Your task to perform on an android device: refresh tabs in the chrome app Image 0: 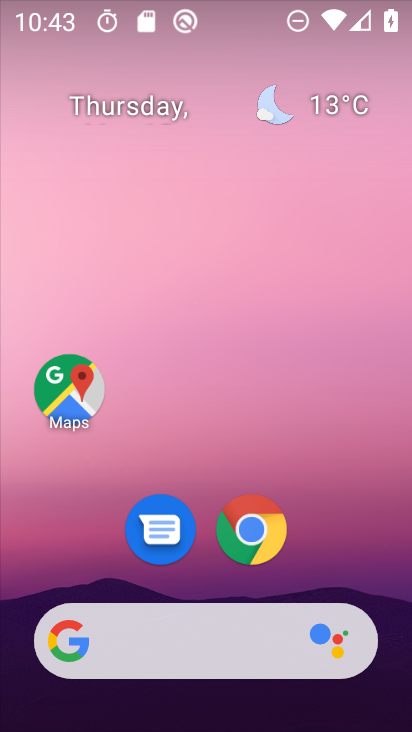
Step 0: click (253, 547)
Your task to perform on an android device: refresh tabs in the chrome app Image 1: 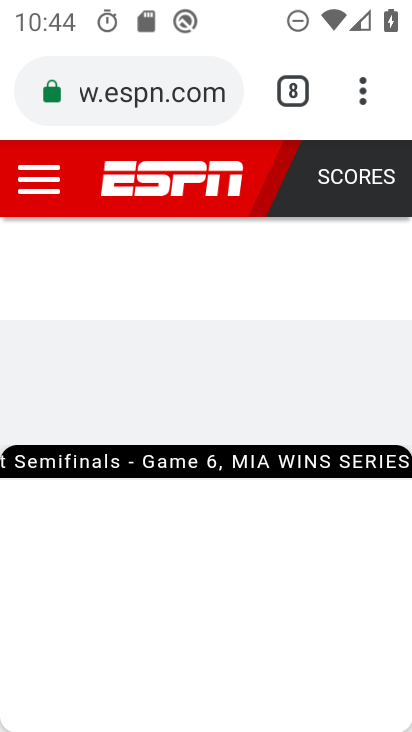
Step 1: click (359, 83)
Your task to perform on an android device: refresh tabs in the chrome app Image 2: 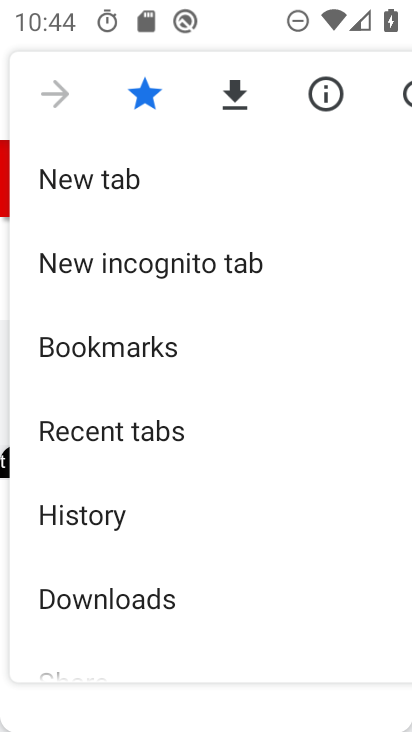
Step 2: drag from (255, 556) to (255, 231)
Your task to perform on an android device: refresh tabs in the chrome app Image 3: 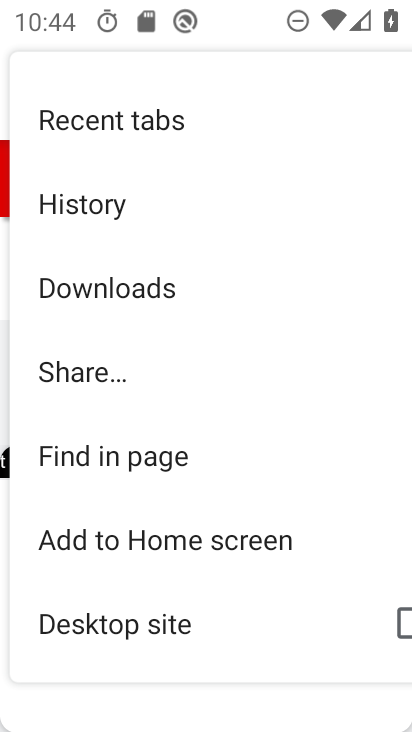
Step 3: drag from (255, 594) to (347, 190)
Your task to perform on an android device: refresh tabs in the chrome app Image 4: 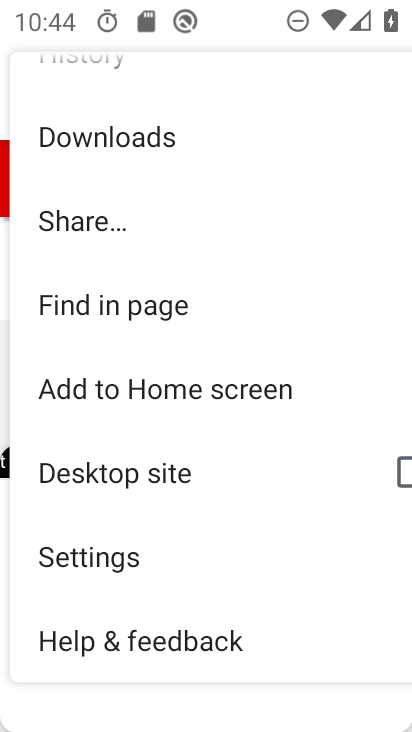
Step 4: drag from (355, 158) to (288, 574)
Your task to perform on an android device: refresh tabs in the chrome app Image 5: 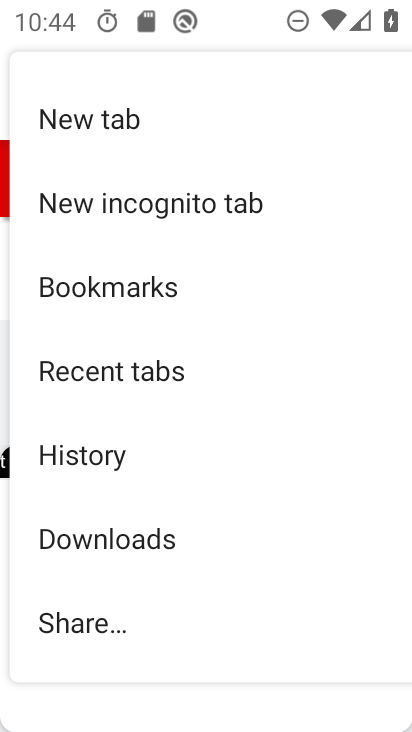
Step 5: drag from (377, 299) to (291, 654)
Your task to perform on an android device: refresh tabs in the chrome app Image 6: 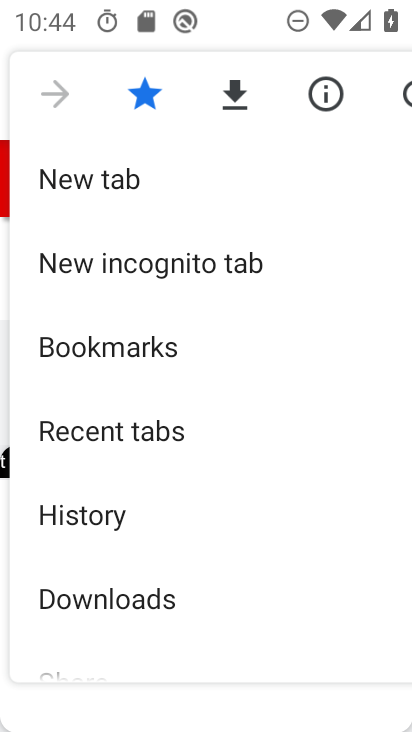
Step 6: drag from (380, 116) to (162, 86)
Your task to perform on an android device: refresh tabs in the chrome app Image 7: 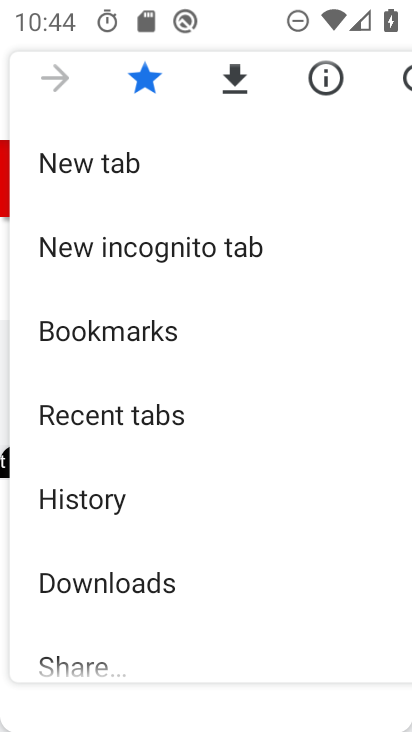
Step 7: click (400, 76)
Your task to perform on an android device: refresh tabs in the chrome app Image 8: 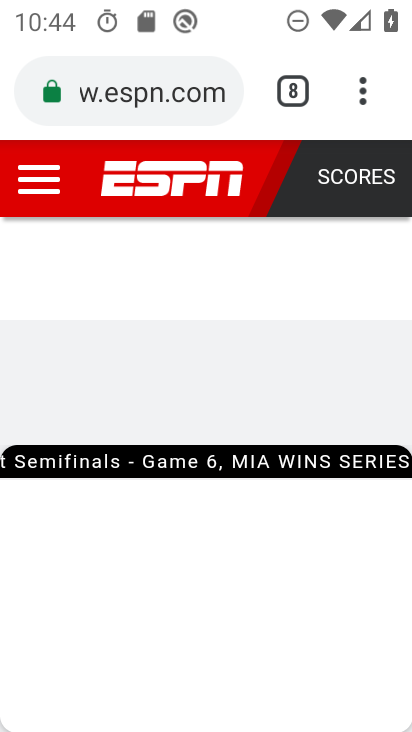
Step 8: task complete